Your task to perform on an android device: Do I have any events this weekend? Image 0: 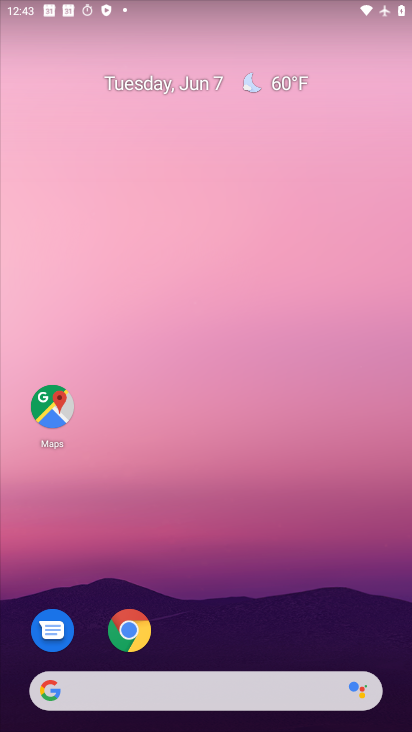
Step 0: drag from (349, 652) to (221, 44)
Your task to perform on an android device: Do I have any events this weekend? Image 1: 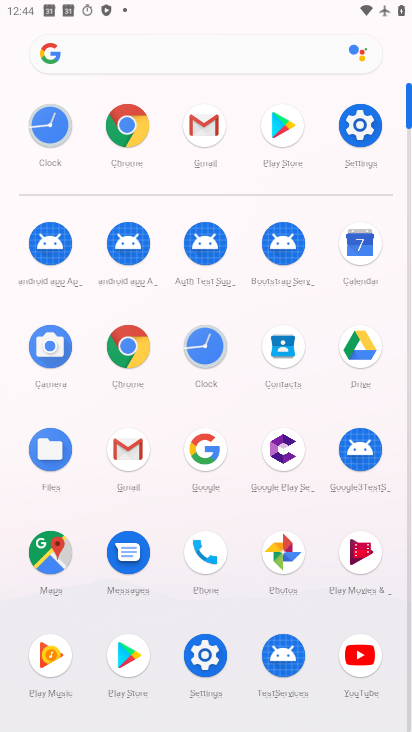
Step 1: click (355, 231)
Your task to perform on an android device: Do I have any events this weekend? Image 2: 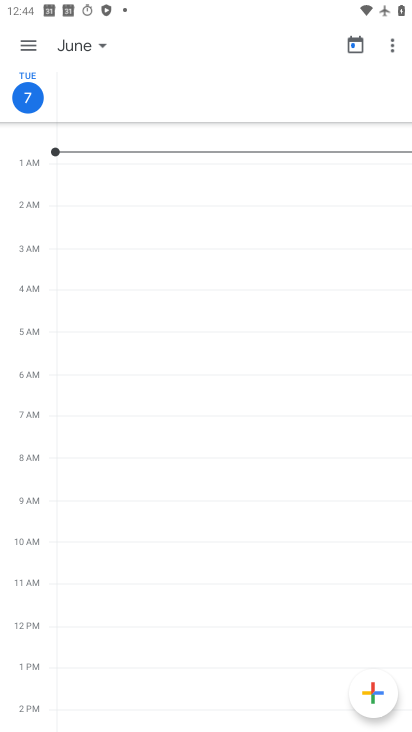
Step 2: task complete